Your task to perform on an android device: Clear the cart on amazon. Search for usb-c to usb-b on amazon, select the first entry, and add it to the cart. Image 0: 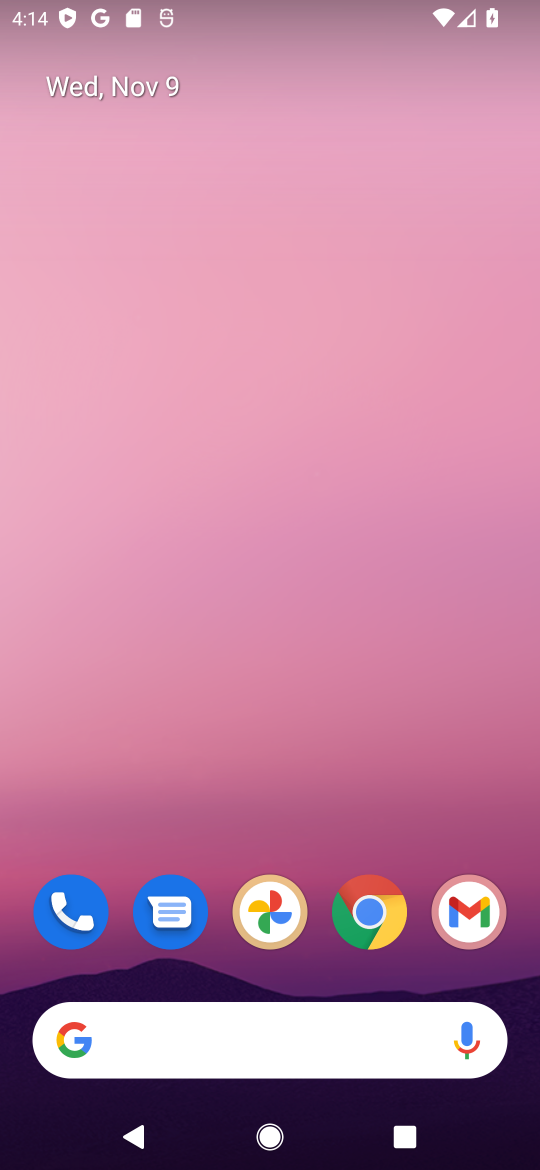
Step 0: click (367, 915)
Your task to perform on an android device: Clear the cart on amazon. Search for usb-c to usb-b on amazon, select the first entry, and add it to the cart. Image 1: 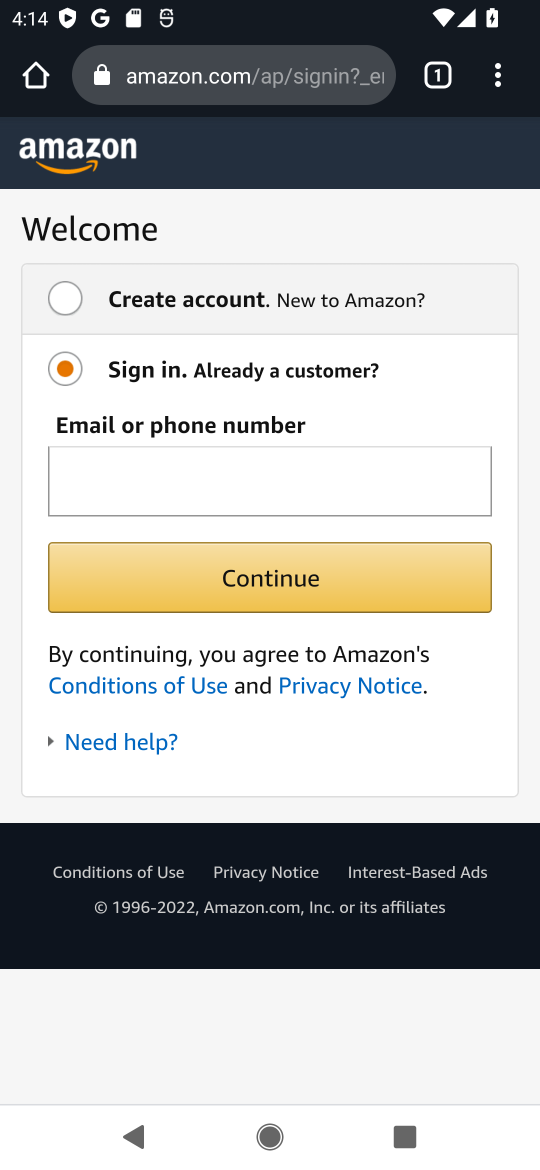
Step 1: click (247, 76)
Your task to perform on an android device: Clear the cart on amazon. Search for usb-c to usb-b on amazon, select the first entry, and add it to the cart. Image 2: 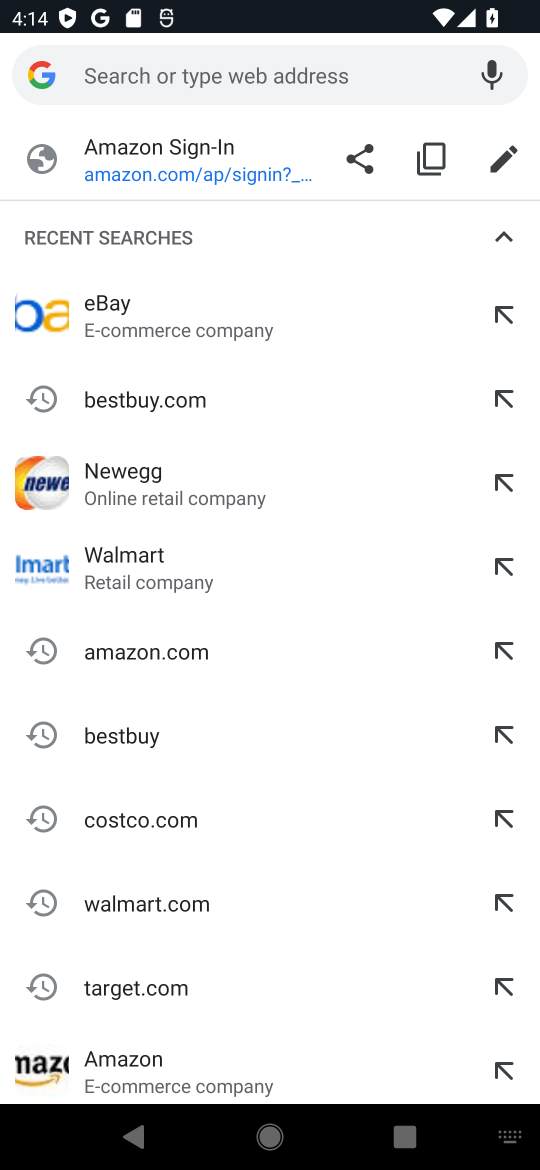
Step 2: type "amazon"
Your task to perform on an android device: Clear the cart on amazon. Search for usb-c to usb-b on amazon, select the first entry, and add it to the cart. Image 3: 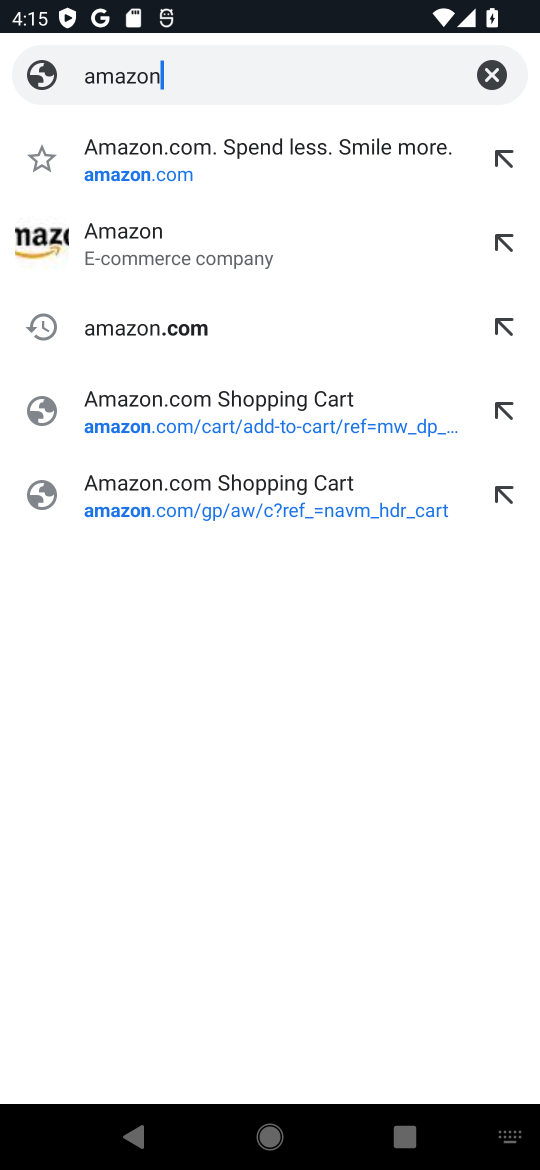
Step 3: click (147, 241)
Your task to perform on an android device: Clear the cart on amazon. Search for usb-c to usb-b on amazon, select the first entry, and add it to the cart. Image 4: 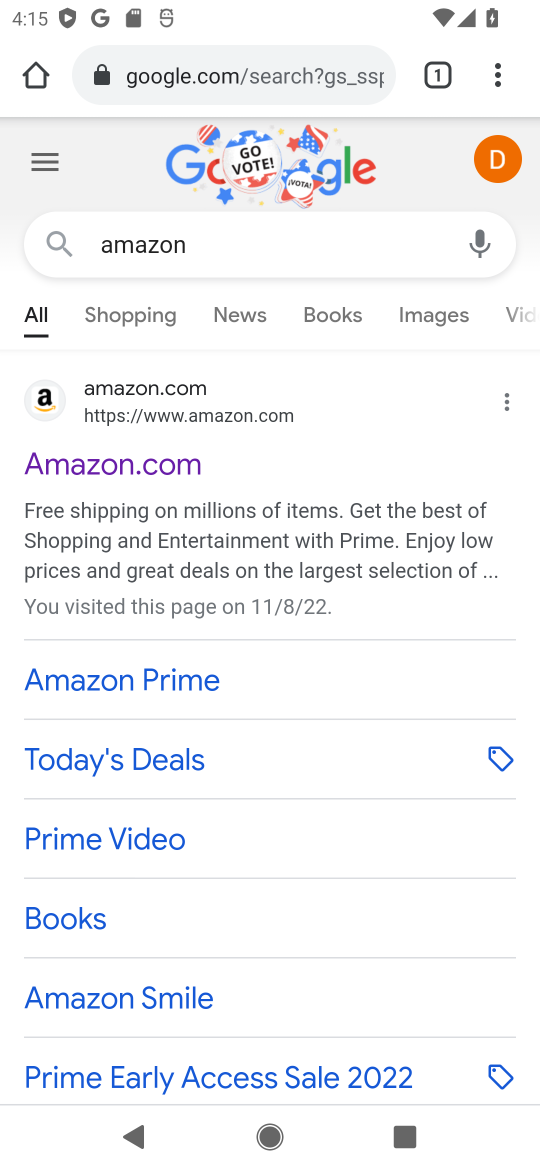
Step 4: click (161, 469)
Your task to perform on an android device: Clear the cart on amazon. Search for usb-c to usb-b on amazon, select the first entry, and add it to the cart. Image 5: 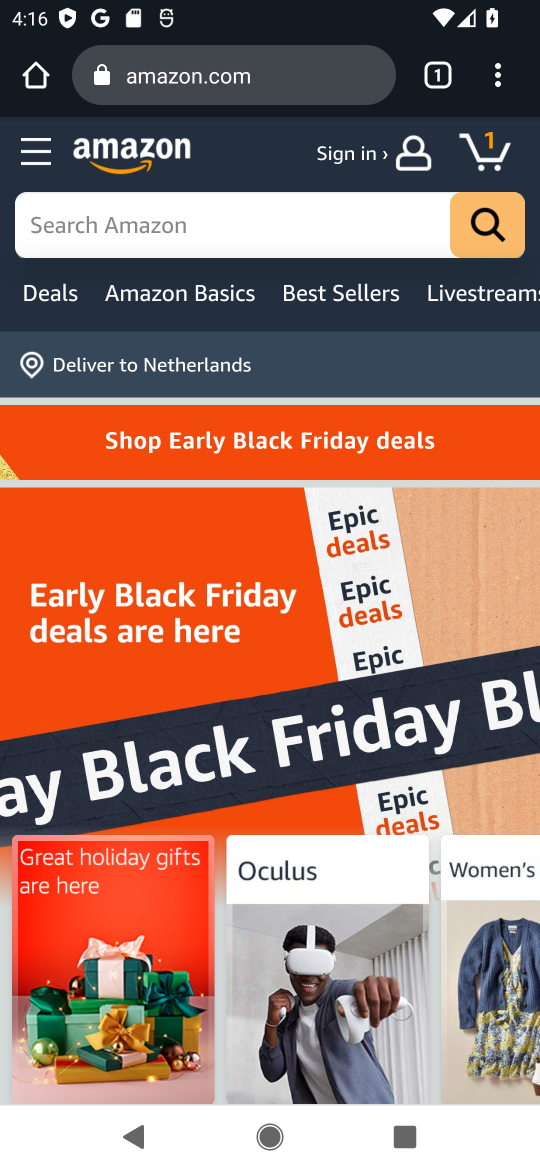
Step 5: click (496, 147)
Your task to perform on an android device: Clear the cart on amazon. Search for usb-c to usb-b on amazon, select the first entry, and add it to the cart. Image 6: 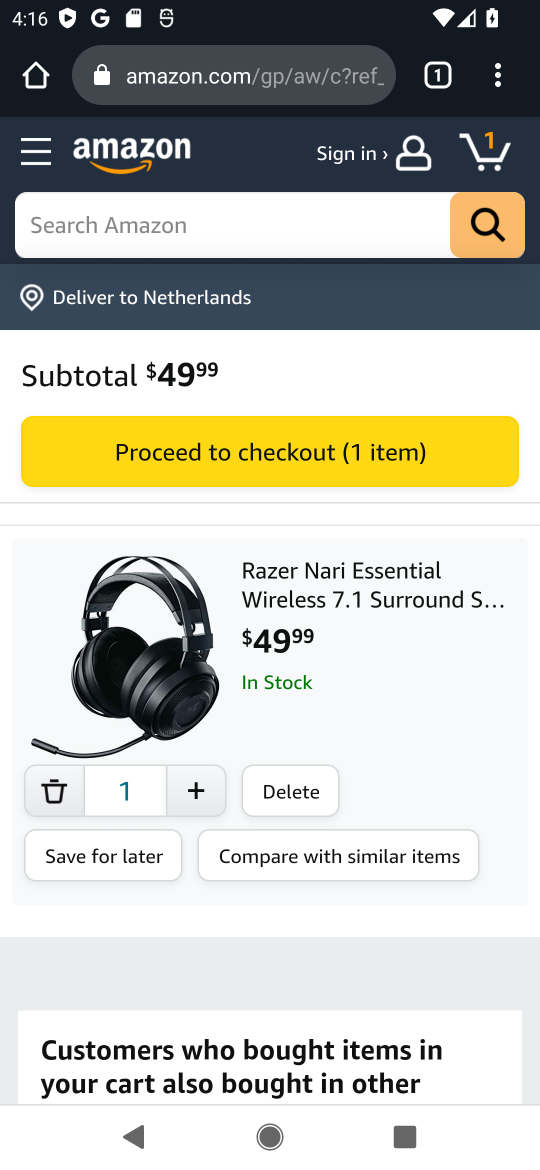
Step 6: click (289, 784)
Your task to perform on an android device: Clear the cart on amazon. Search for usb-c to usb-b on amazon, select the first entry, and add it to the cart. Image 7: 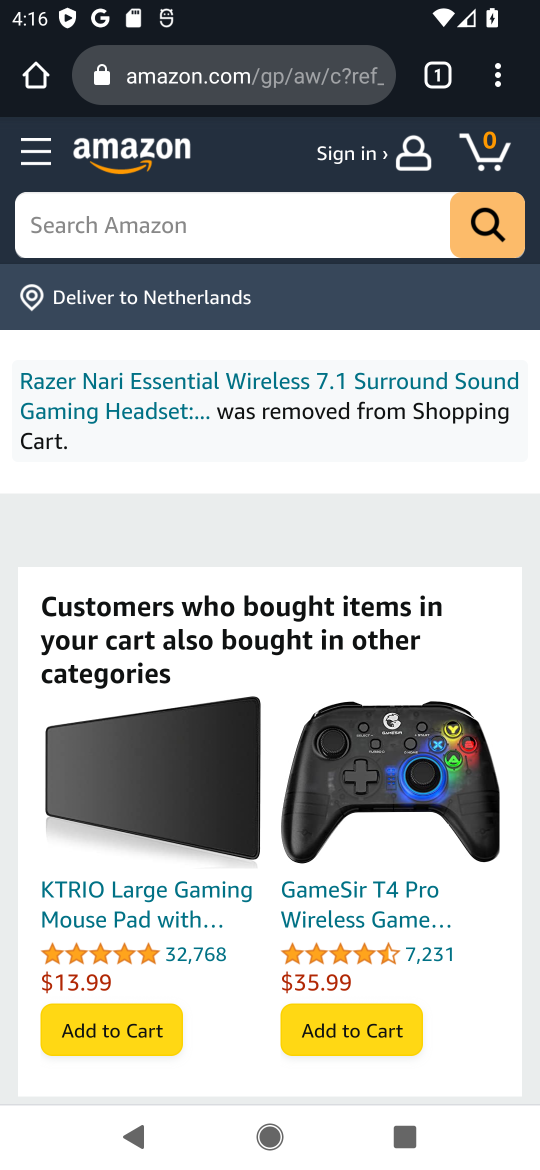
Step 7: click (347, 237)
Your task to perform on an android device: Clear the cart on amazon. Search for usb-c to usb-b on amazon, select the first entry, and add it to the cart. Image 8: 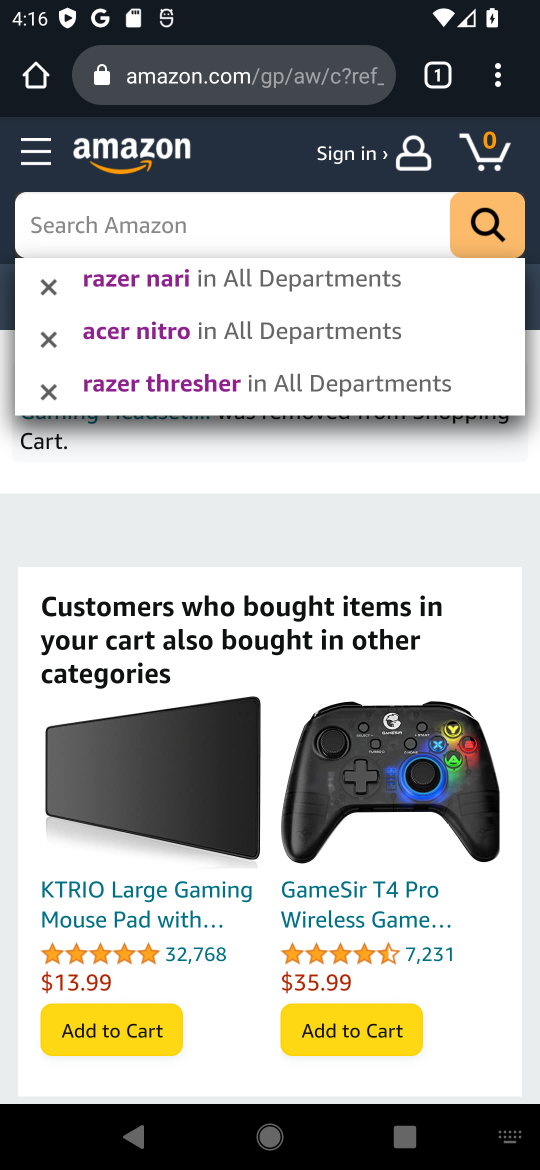
Step 8: type "usb-c to usb-b"
Your task to perform on an android device: Clear the cart on amazon. Search for usb-c to usb-b on amazon, select the first entry, and add it to the cart. Image 9: 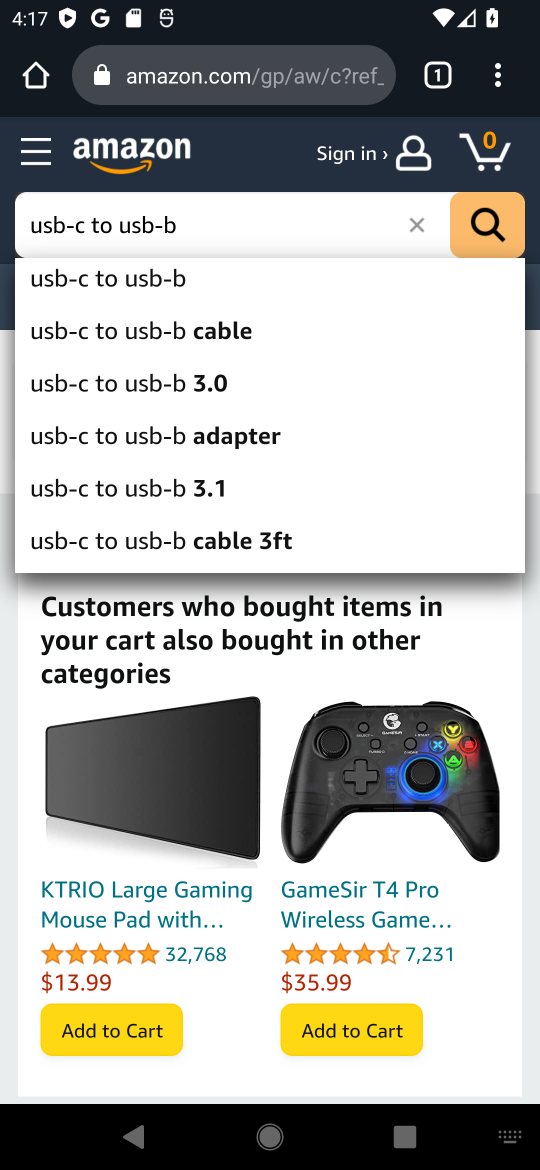
Step 9: click (153, 275)
Your task to perform on an android device: Clear the cart on amazon. Search for usb-c to usb-b on amazon, select the first entry, and add it to the cart. Image 10: 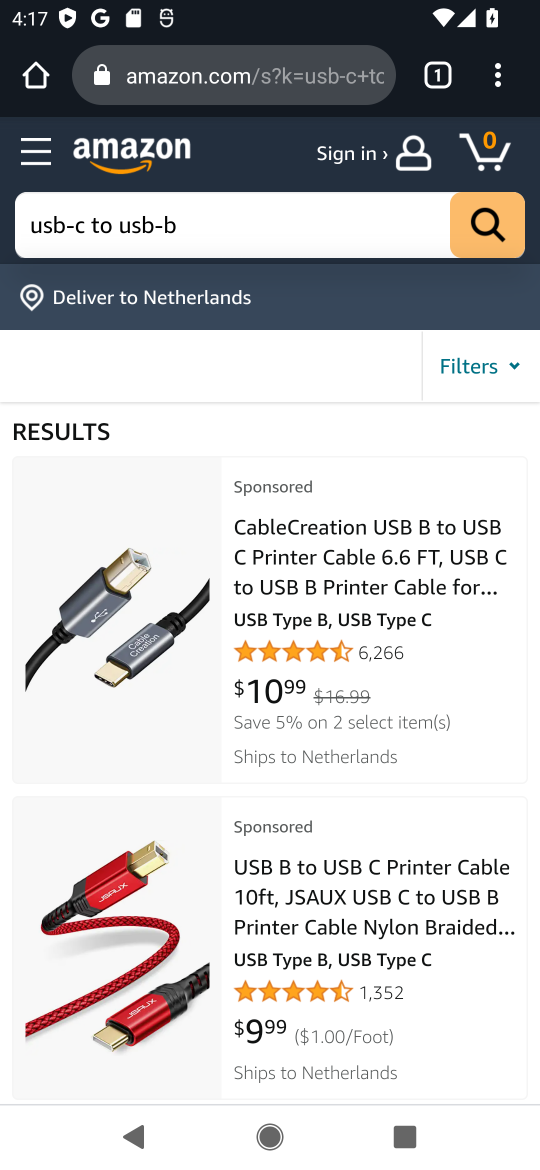
Step 10: click (354, 536)
Your task to perform on an android device: Clear the cart on amazon. Search for usb-c to usb-b on amazon, select the first entry, and add it to the cart. Image 11: 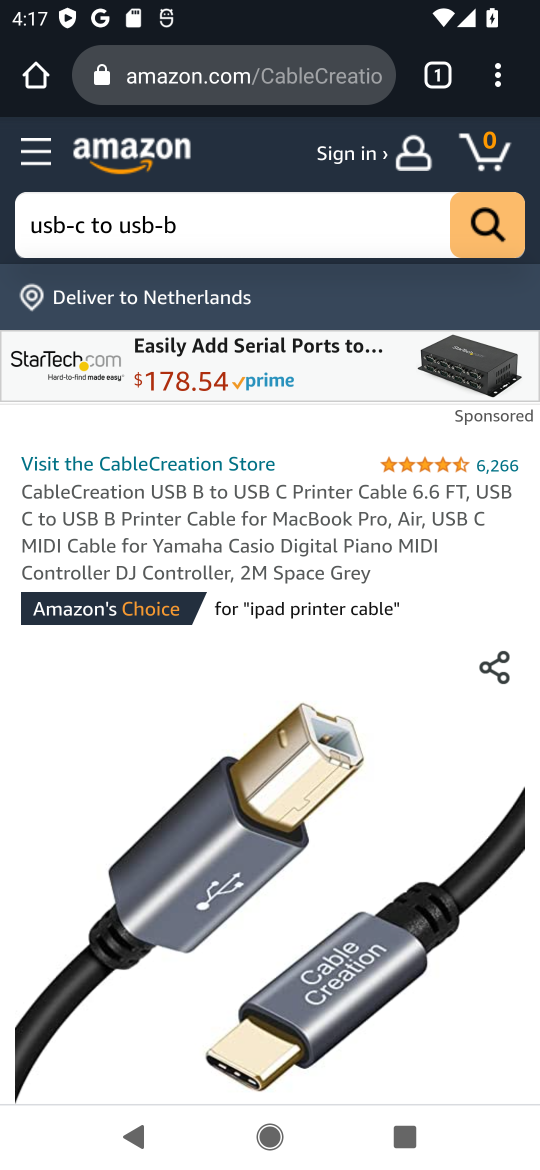
Step 11: drag from (314, 860) to (328, 461)
Your task to perform on an android device: Clear the cart on amazon. Search for usb-c to usb-b on amazon, select the first entry, and add it to the cart. Image 12: 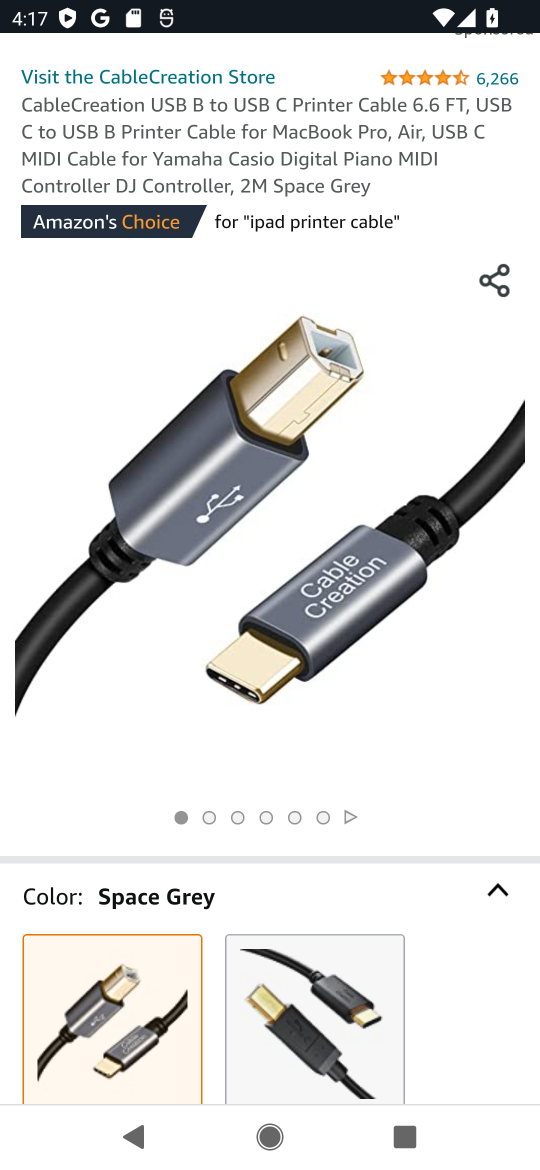
Step 12: drag from (324, 685) to (341, 283)
Your task to perform on an android device: Clear the cart on amazon. Search for usb-c to usb-b on amazon, select the first entry, and add it to the cart. Image 13: 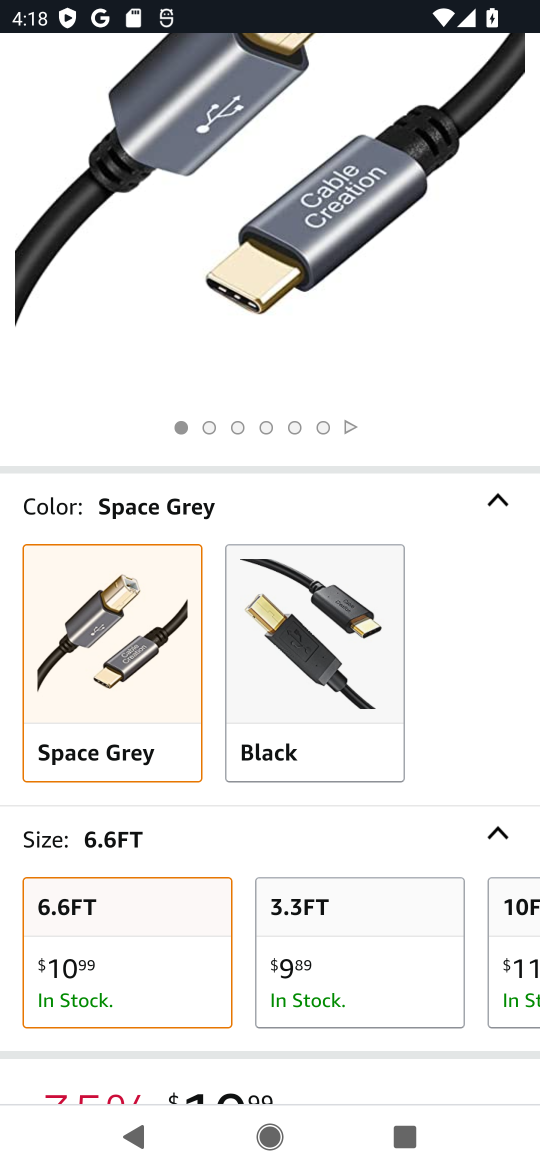
Step 13: drag from (442, 764) to (433, 364)
Your task to perform on an android device: Clear the cart on amazon. Search for usb-c to usb-b on amazon, select the first entry, and add it to the cart. Image 14: 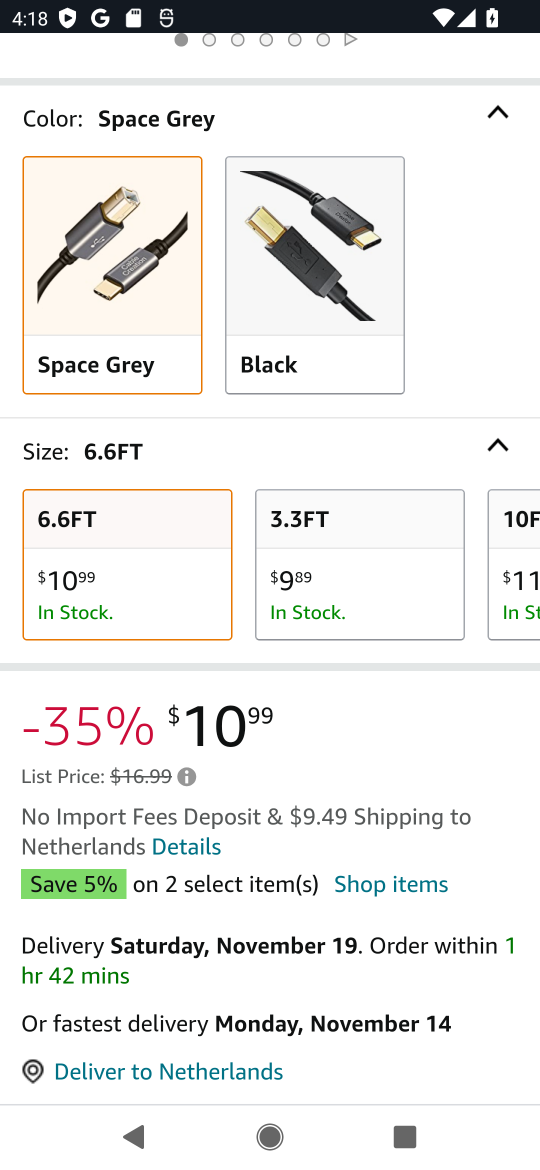
Step 14: drag from (313, 739) to (344, 352)
Your task to perform on an android device: Clear the cart on amazon. Search for usb-c to usb-b on amazon, select the first entry, and add it to the cart. Image 15: 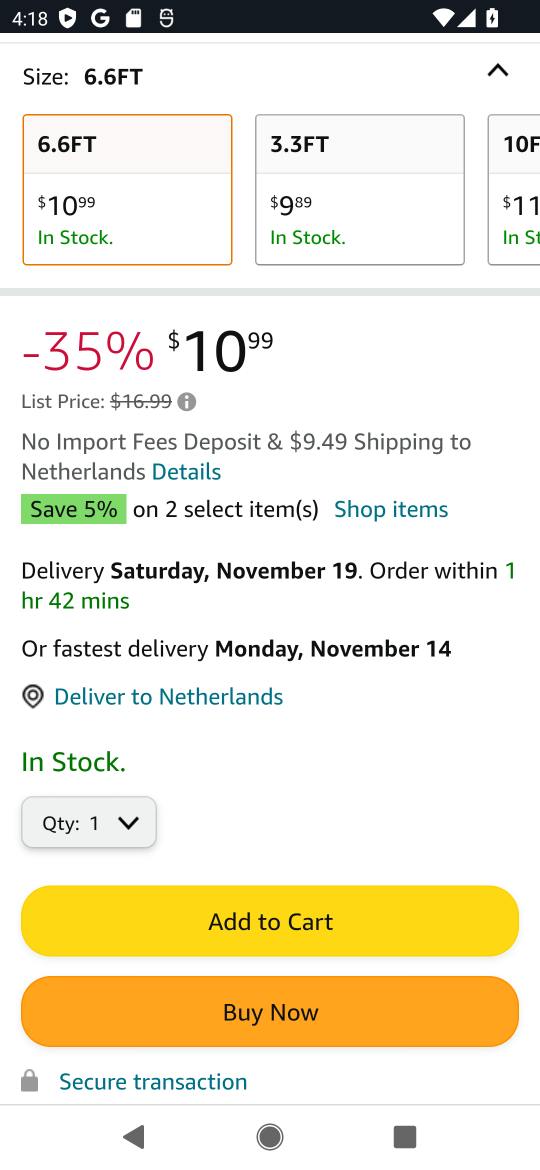
Step 15: click (290, 915)
Your task to perform on an android device: Clear the cart on amazon. Search for usb-c to usb-b on amazon, select the first entry, and add it to the cart. Image 16: 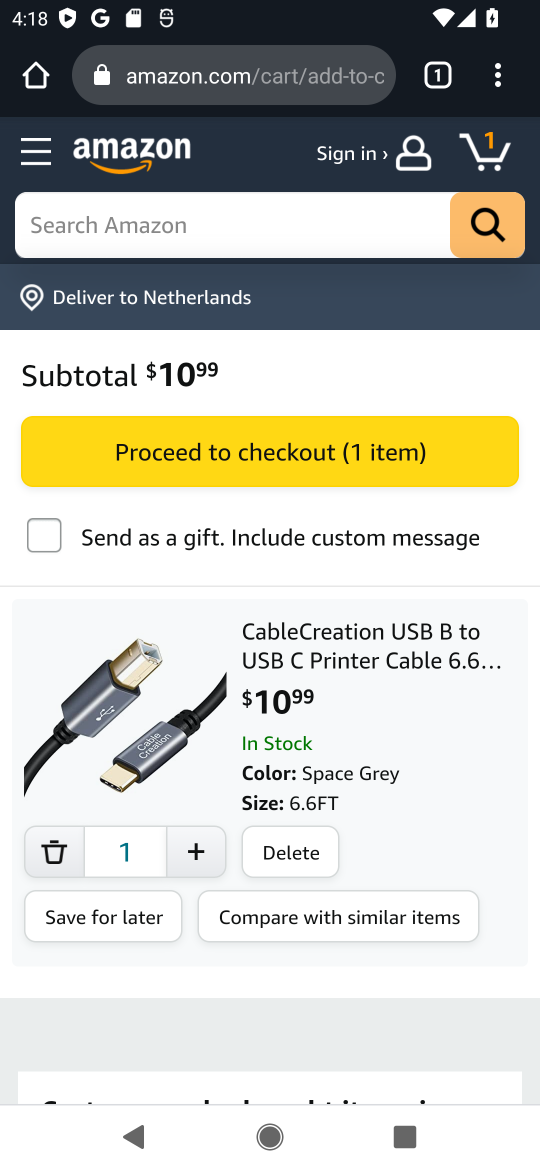
Step 16: task complete